Your task to perform on an android device: add a contact in the contacts app Image 0: 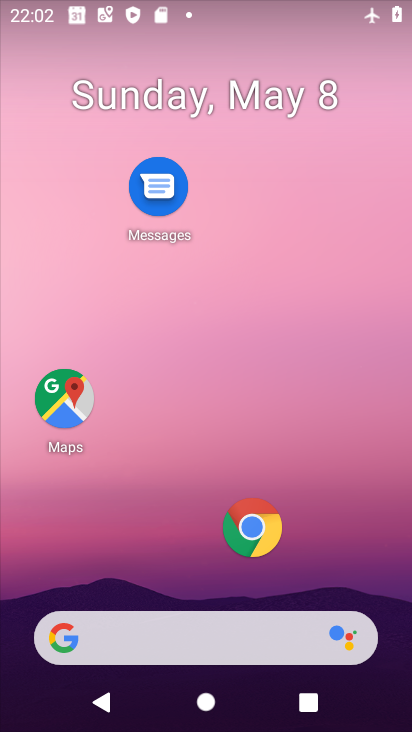
Step 0: drag from (188, 519) to (224, 83)
Your task to perform on an android device: add a contact in the contacts app Image 1: 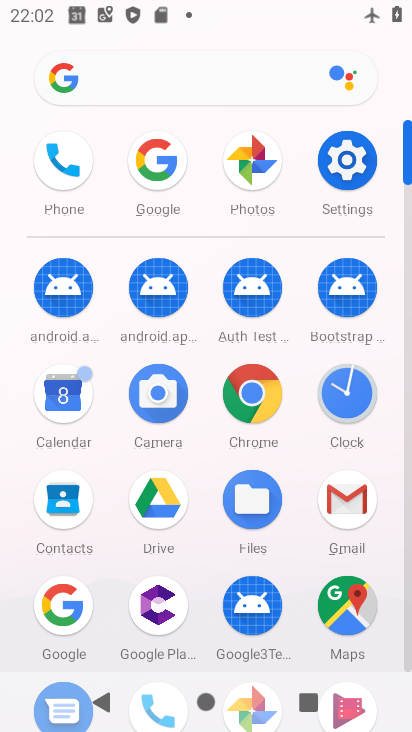
Step 1: click (69, 499)
Your task to perform on an android device: add a contact in the contacts app Image 2: 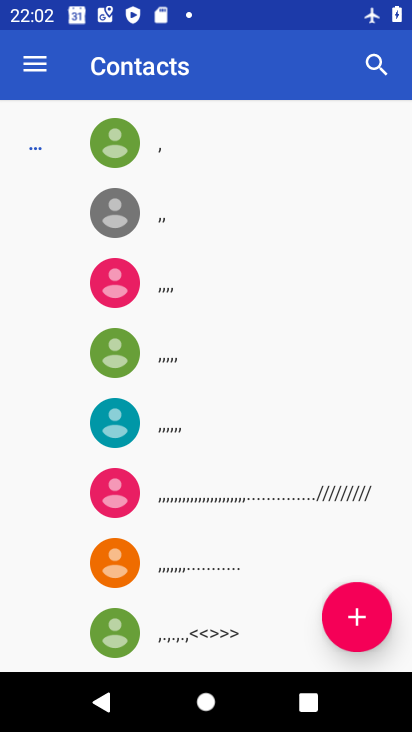
Step 2: click (363, 607)
Your task to perform on an android device: add a contact in the contacts app Image 3: 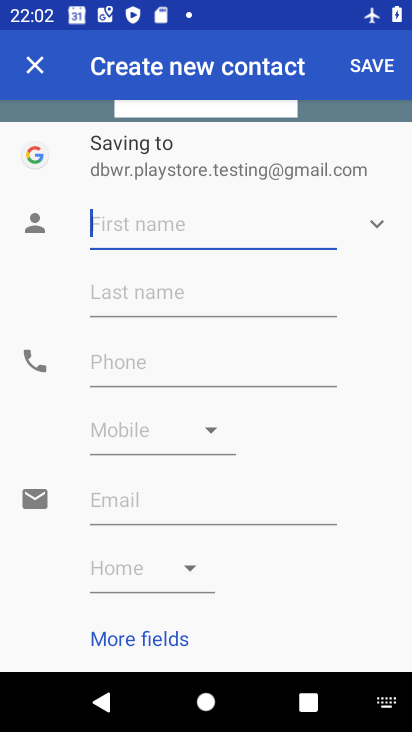
Step 3: type "hgdghfsx"
Your task to perform on an android device: add a contact in the contacts app Image 4: 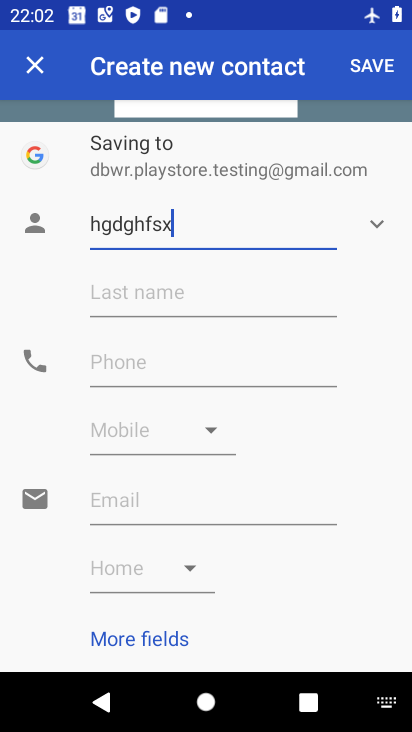
Step 4: click (371, 68)
Your task to perform on an android device: add a contact in the contacts app Image 5: 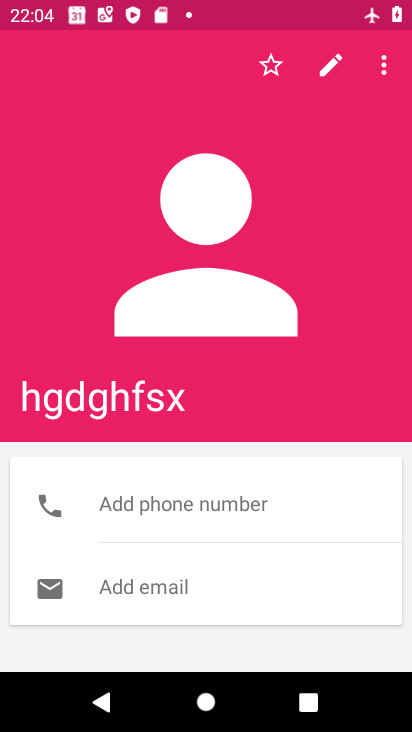
Step 5: task complete